Your task to perform on an android device: change timer sound Image 0: 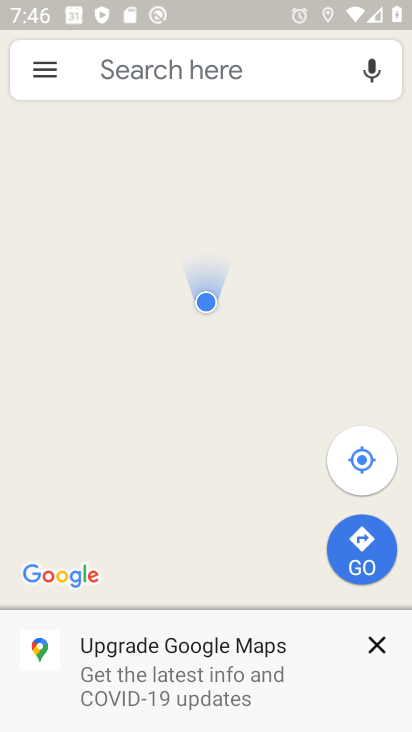
Step 0: press home button
Your task to perform on an android device: change timer sound Image 1: 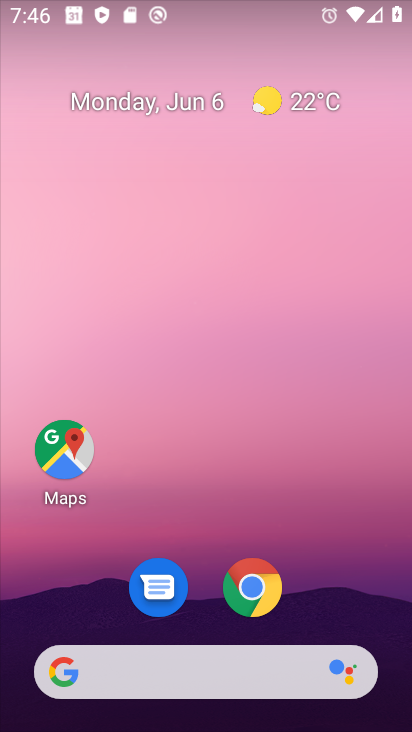
Step 1: drag from (322, 573) to (309, 100)
Your task to perform on an android device: change timer sound Image 2: 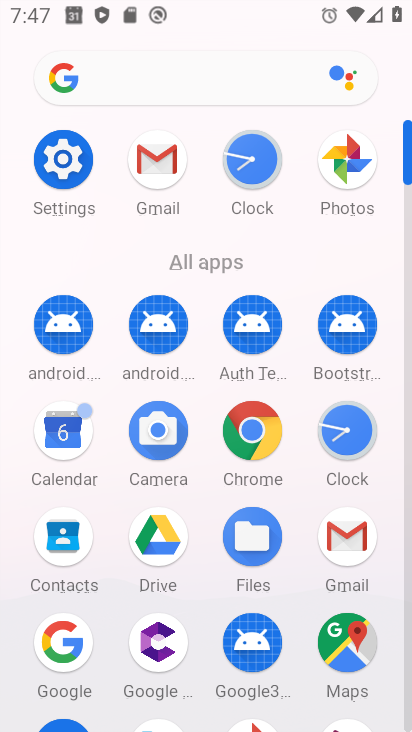
Step 2: click (256, 156)
Your task to perform on an android device: change timer sound Image 3: 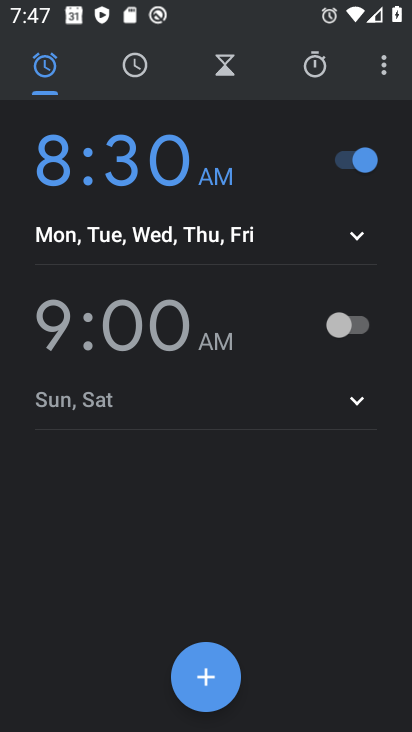
Step 3: click (381, 51)
Your task to perform on an android device: change timer sound Image 4: 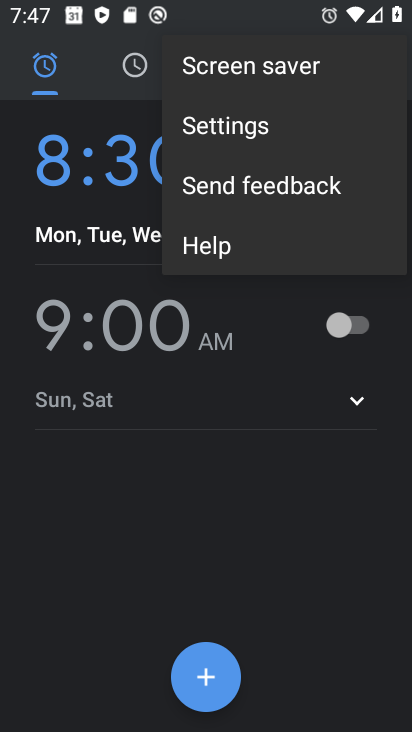
Step 4: click (251, 137)
Your task to perform on an android device: change timer sound Image 5: 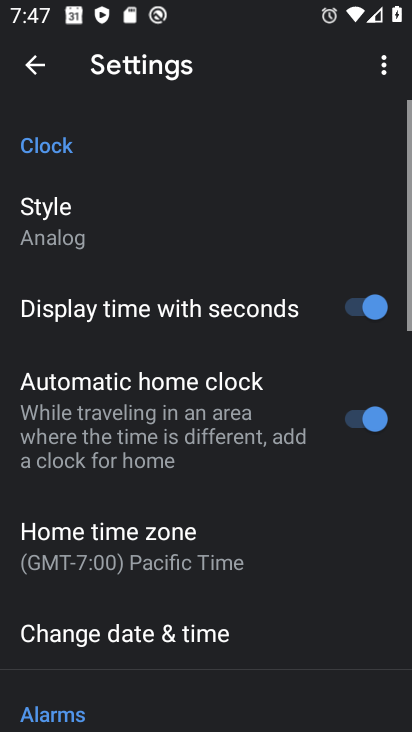
Step 5: drag from (242, 611) to (289, 8)
Your task to perform on an android device: change timer sound Image 6: 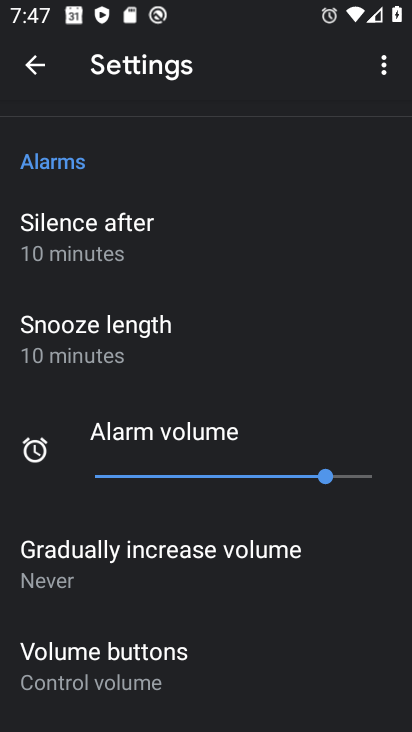
Step 6: drag from (199, 652) to (229, 177)
Your task to perform on an android device: change timer sound Image 7: 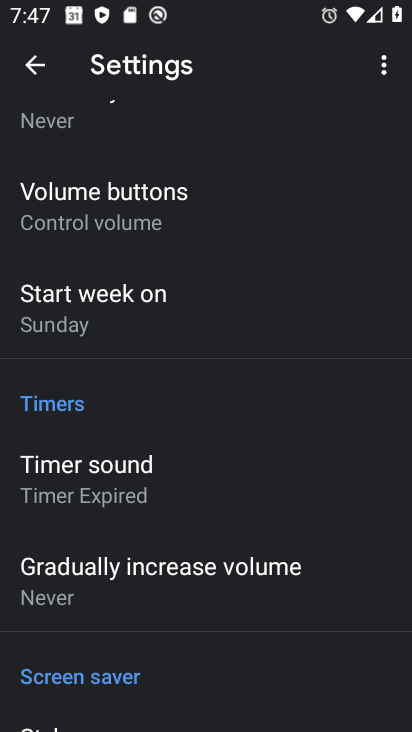
Step 7: click (104, 516)
Your task to perform on an android device: change timer sound Image 8: 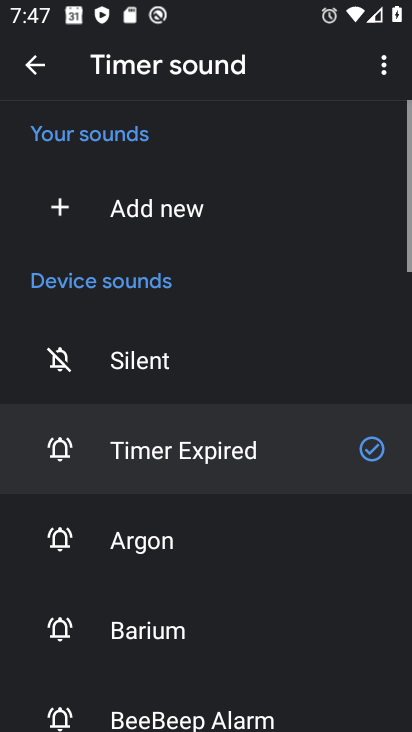
Step 8: click (155, 568)
Your task to perform on an android device: change timer sound Image 9: 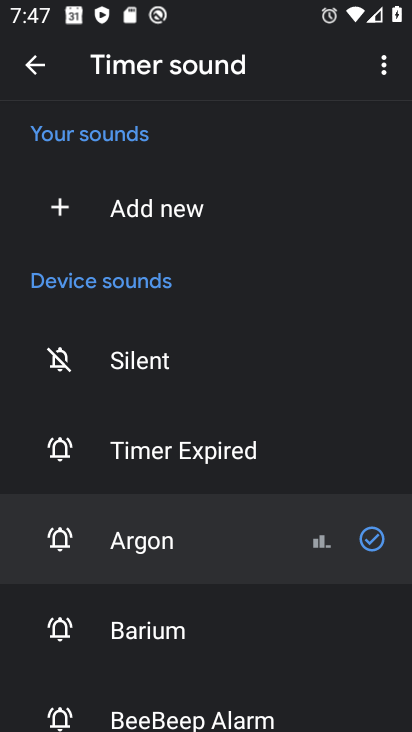
Step 9: task complete